Your task to perform on an android device: turn off smart reply in the gmail app Image 0: 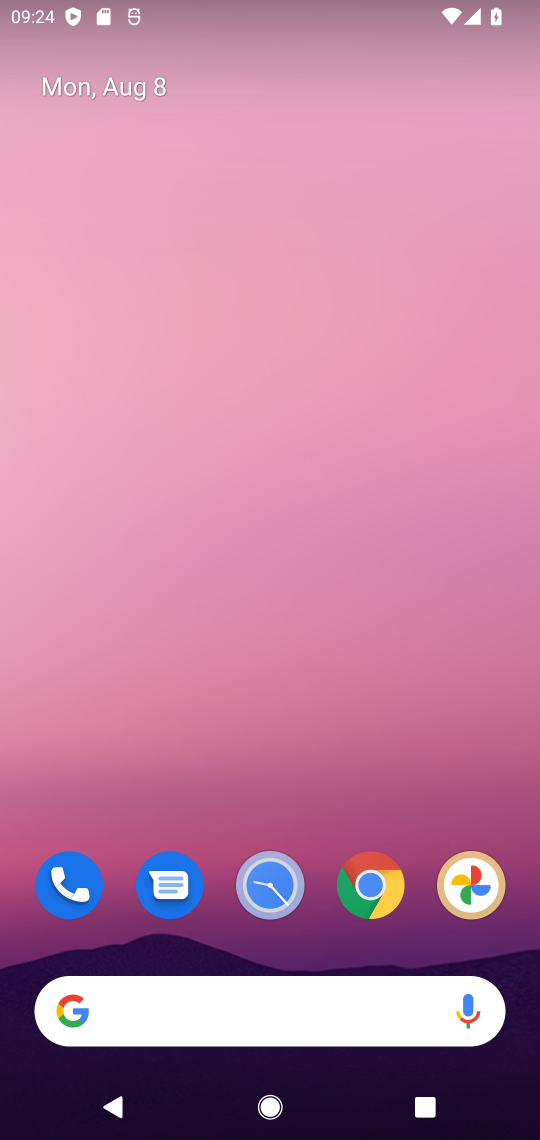
Step 0: drag from (197, 736) to (27, 815)
Your task to perform on an android device: turn off smart reply in the gmail app Image 1: 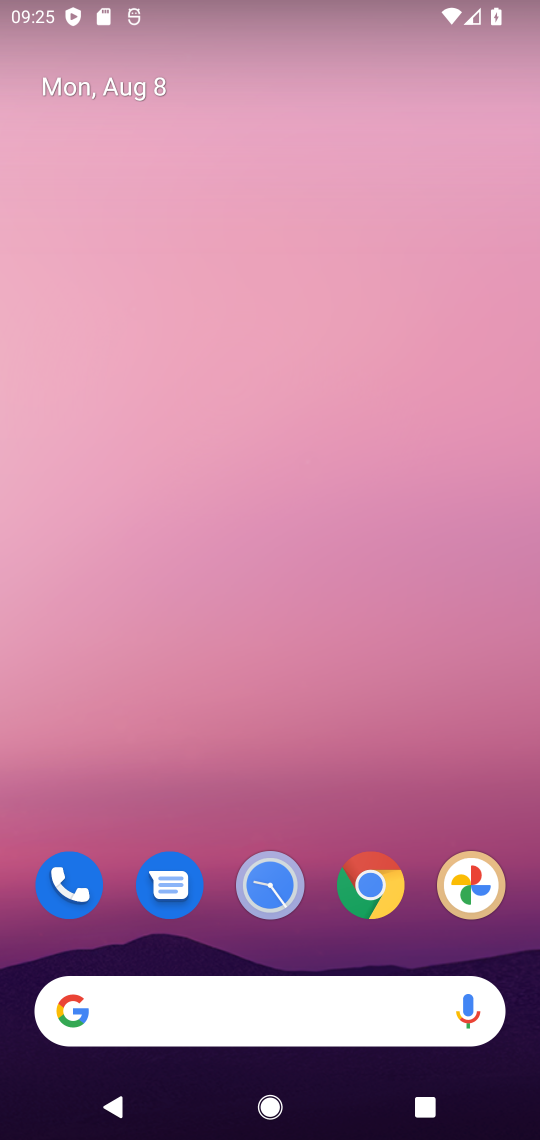
Step 1: drag from (282, 820) to (331, 12)
Your task to perform on an android device: turn off smart reply in the gmail app Image 2: 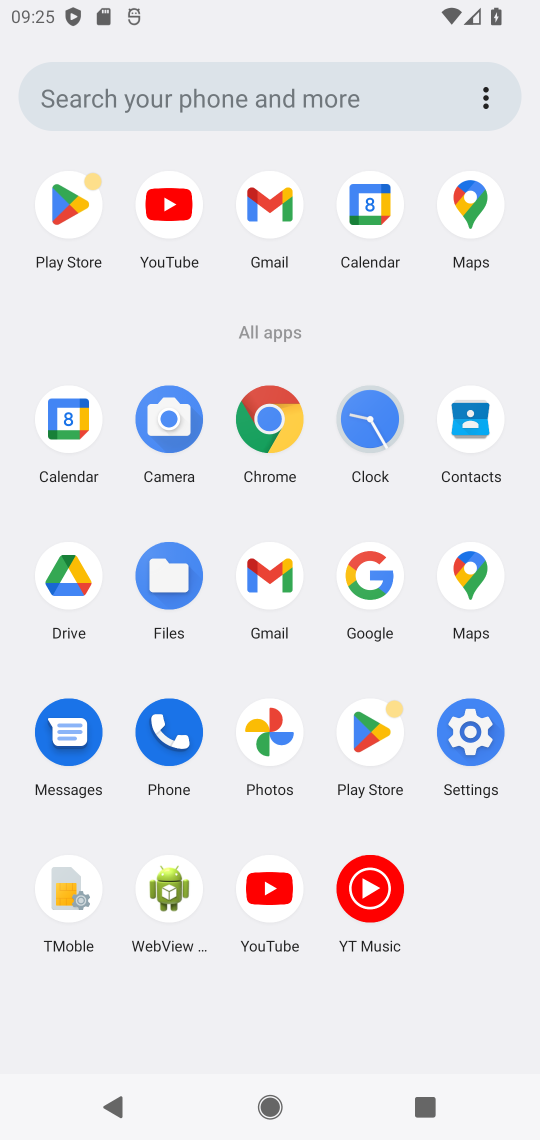
Step 2: click (256, 591)
Your task to perform on an android device: turn off smart reply in the gmail app Image 3: 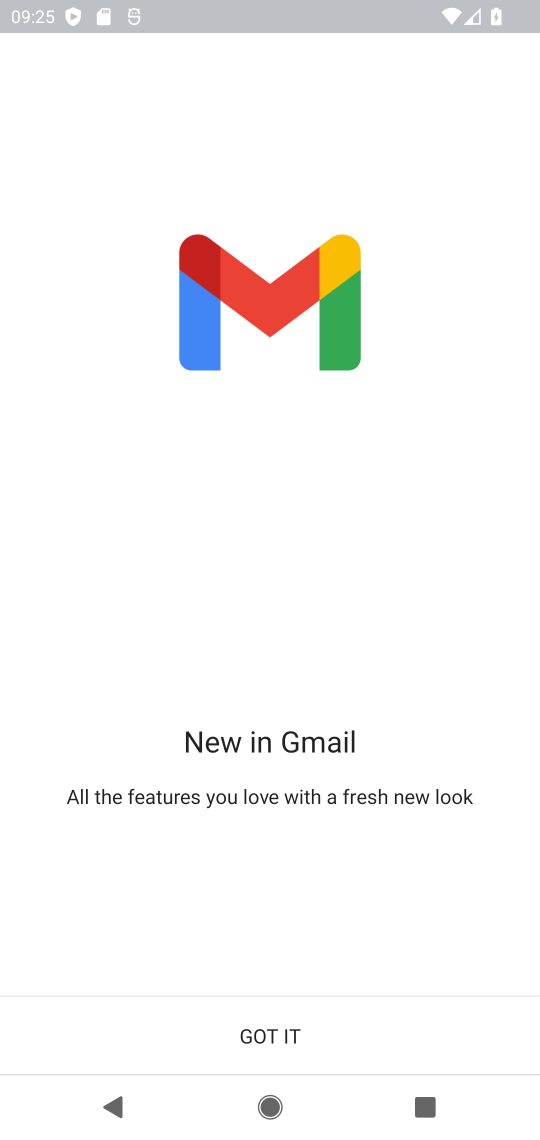
Step 3: click (285, 1039)
Your task to perform on an android device: turn off smart reply in the gmail app Image 4: 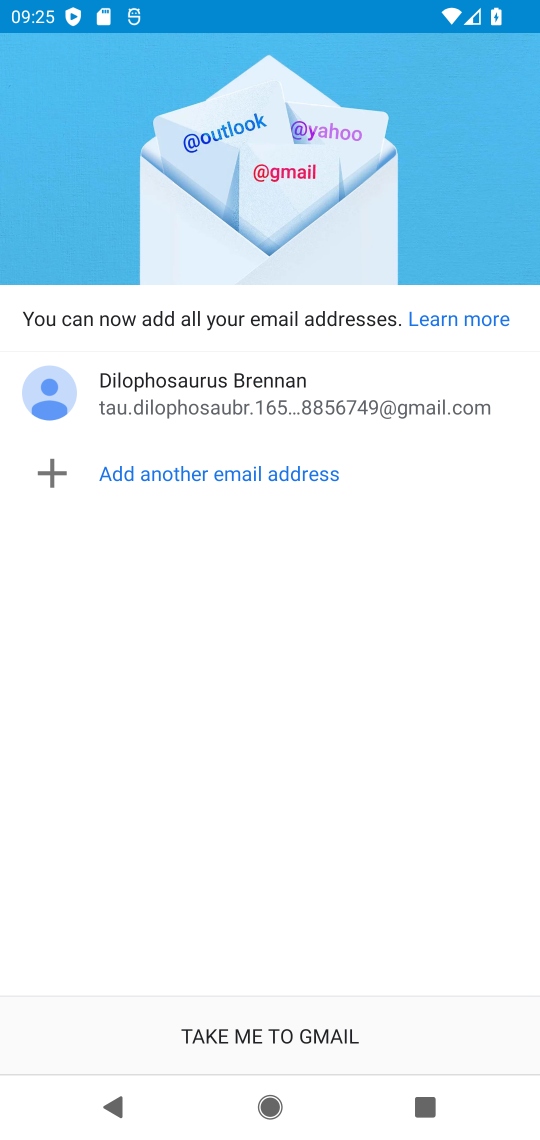
Step 4: click (285, 1039)
Your task to perform on an android device: turn off smart reply in the gmail app Image 5: 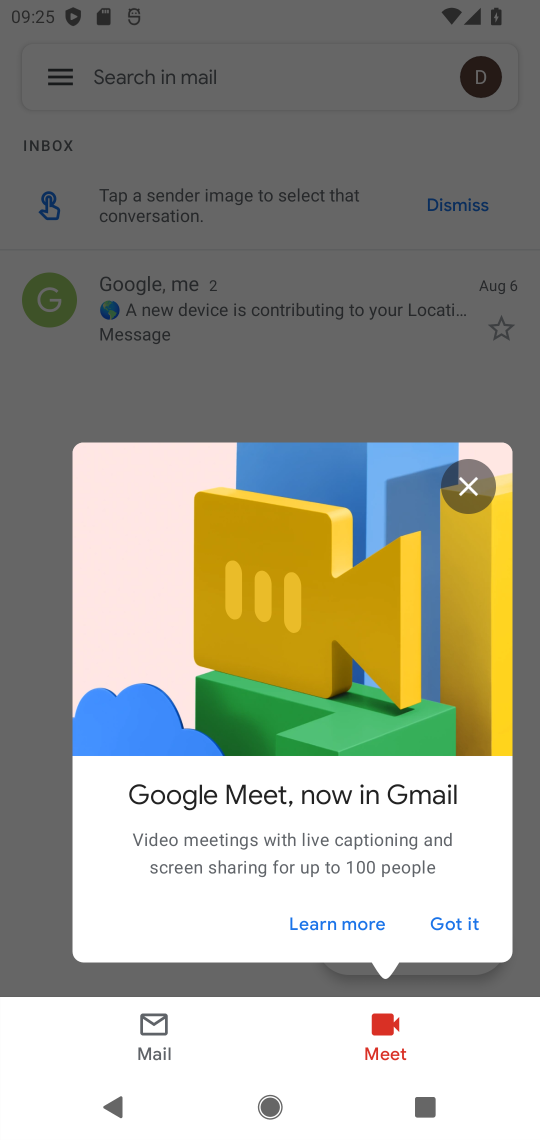
Step 5: click (433, 937)
Your task to perform on an android device: turn off smart reply in the gmail app Image 6: 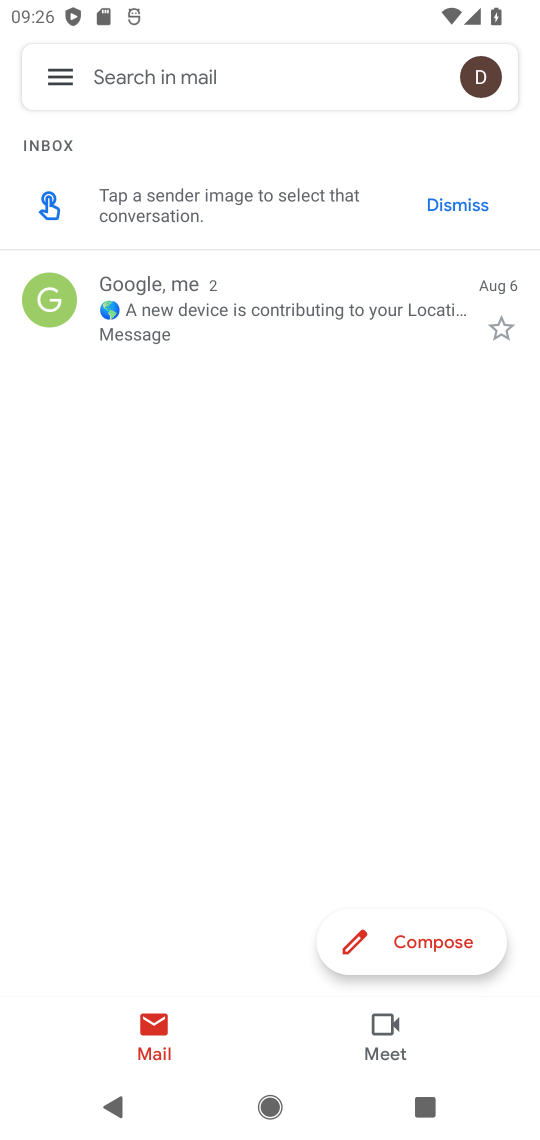
Step 6: click (51, 90)
Your task to perform on an android device: turn off smart reply in the gmail app Image 7: 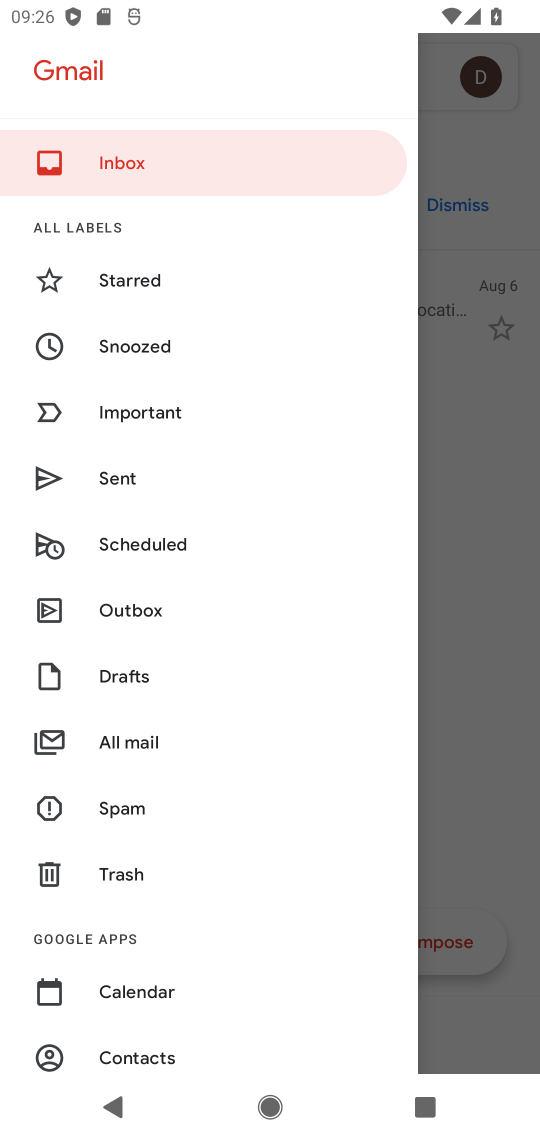
Step 7: drag from (120, 1026) to (177, 661)
Your task to perform on an android device: turn off smart reply in the gmail app Image 8: 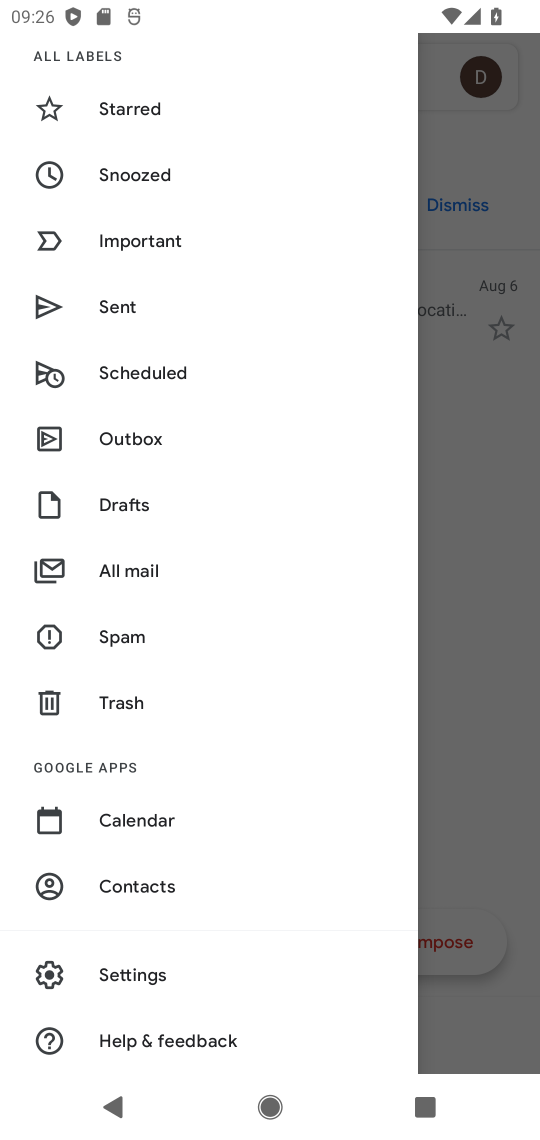
Step 8: click (149, 980)
Your task to perform on an android device: turn off smart reply in the gmail app Image 9: 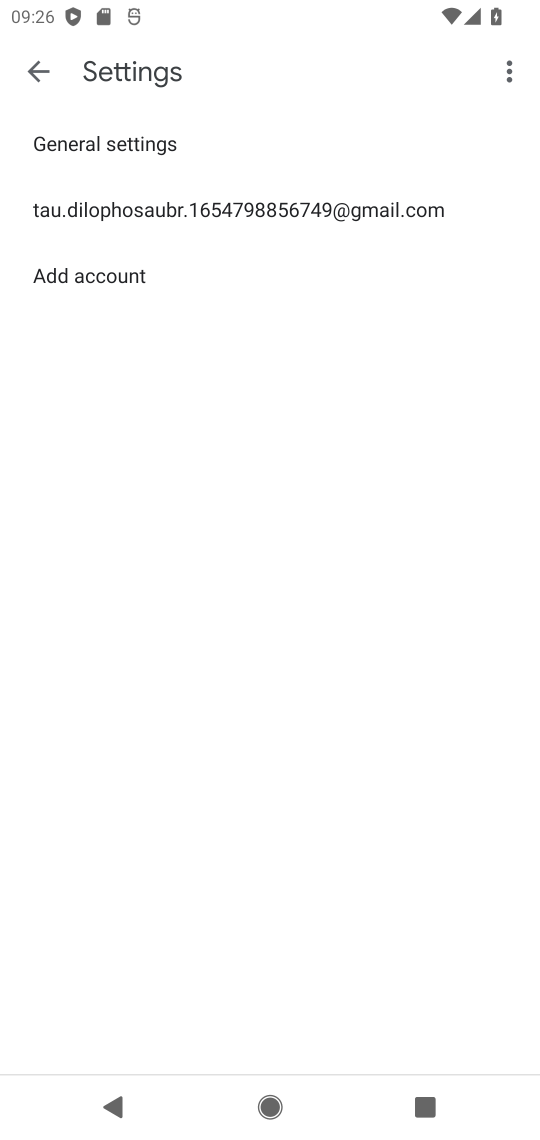
Step 9: click (189, 224)
Your task to perform on an android device: turn off smart reply in the gmail app Image 10: 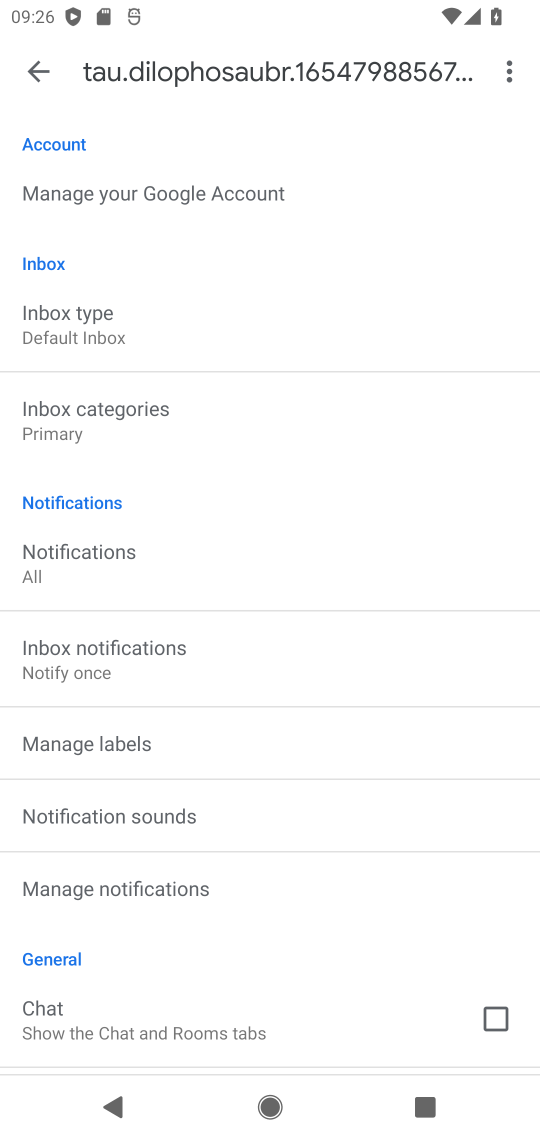
Step 10: click (81, 343)
Your task to perform on an android device: turn off smart reply in the gmail app Image 11: 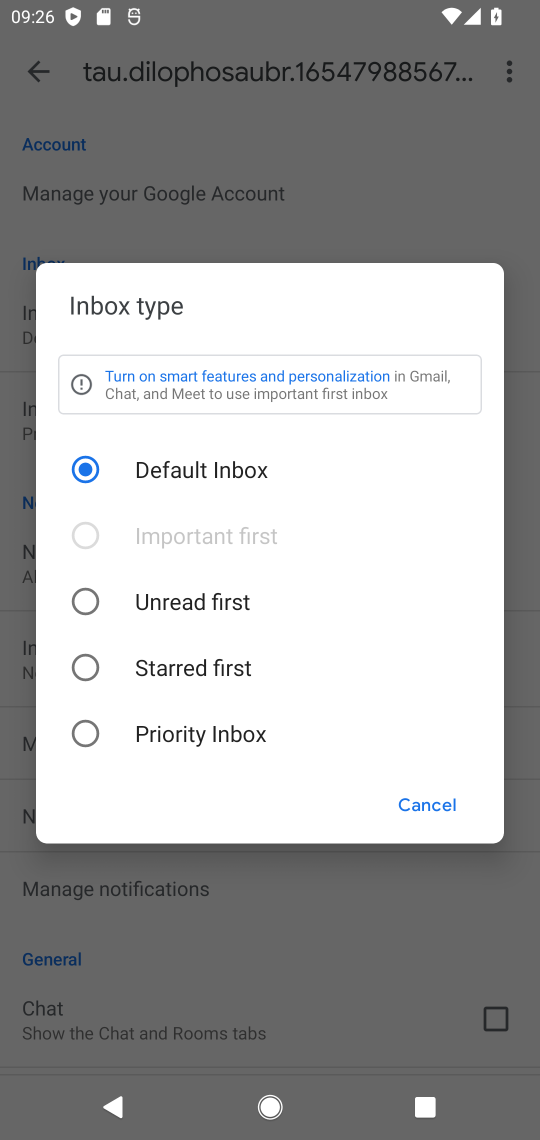
Step 11: click (455, 803)
Your task to perform on an android device: turn off smart reply in the gmail app Image 12: 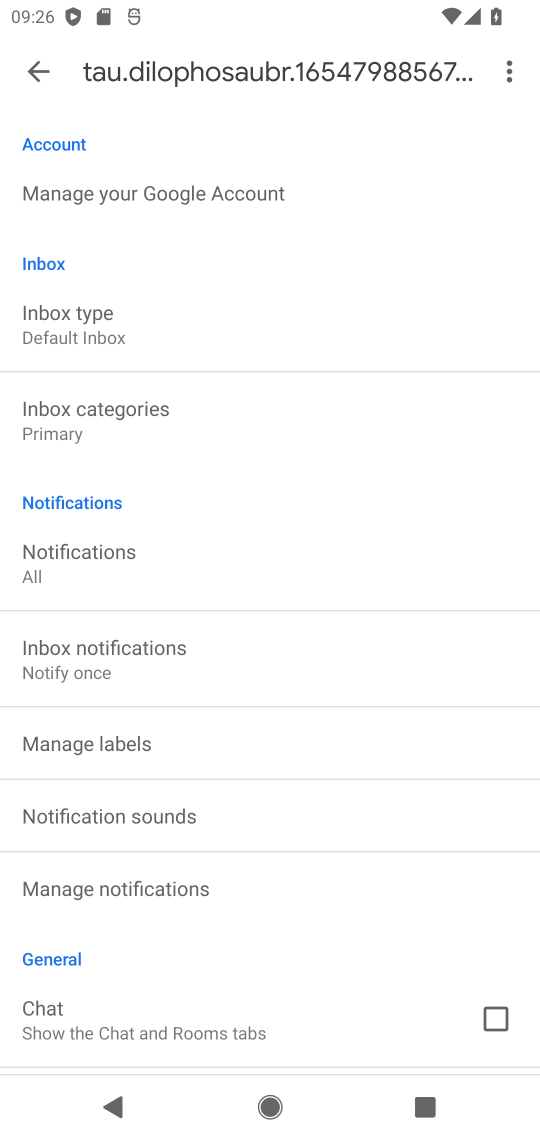
Step 12: task complete